Your task to perform on an android device: uninstall "The Home Depot" Image 0: 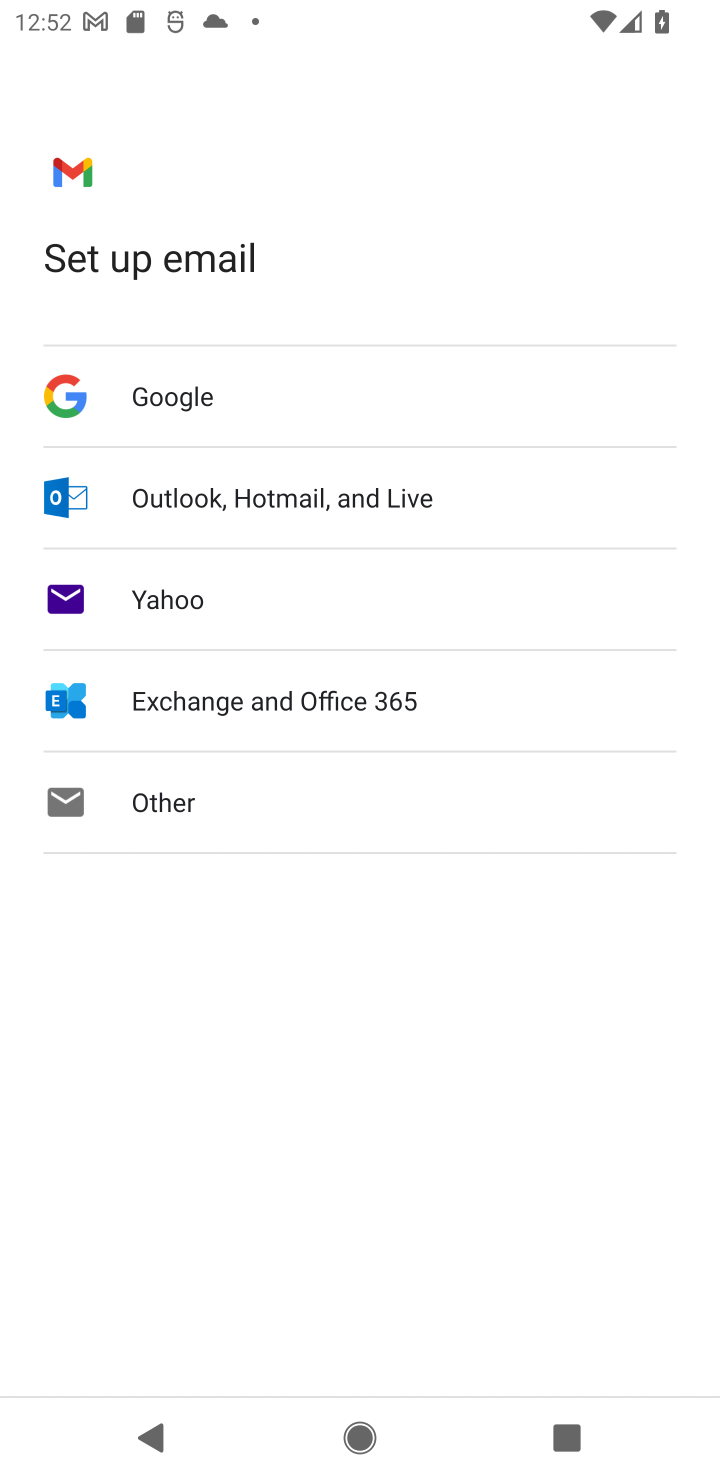
Step 0: press home button
Your task to perform on an android device: uninstall "The Home Depot" Image 1: 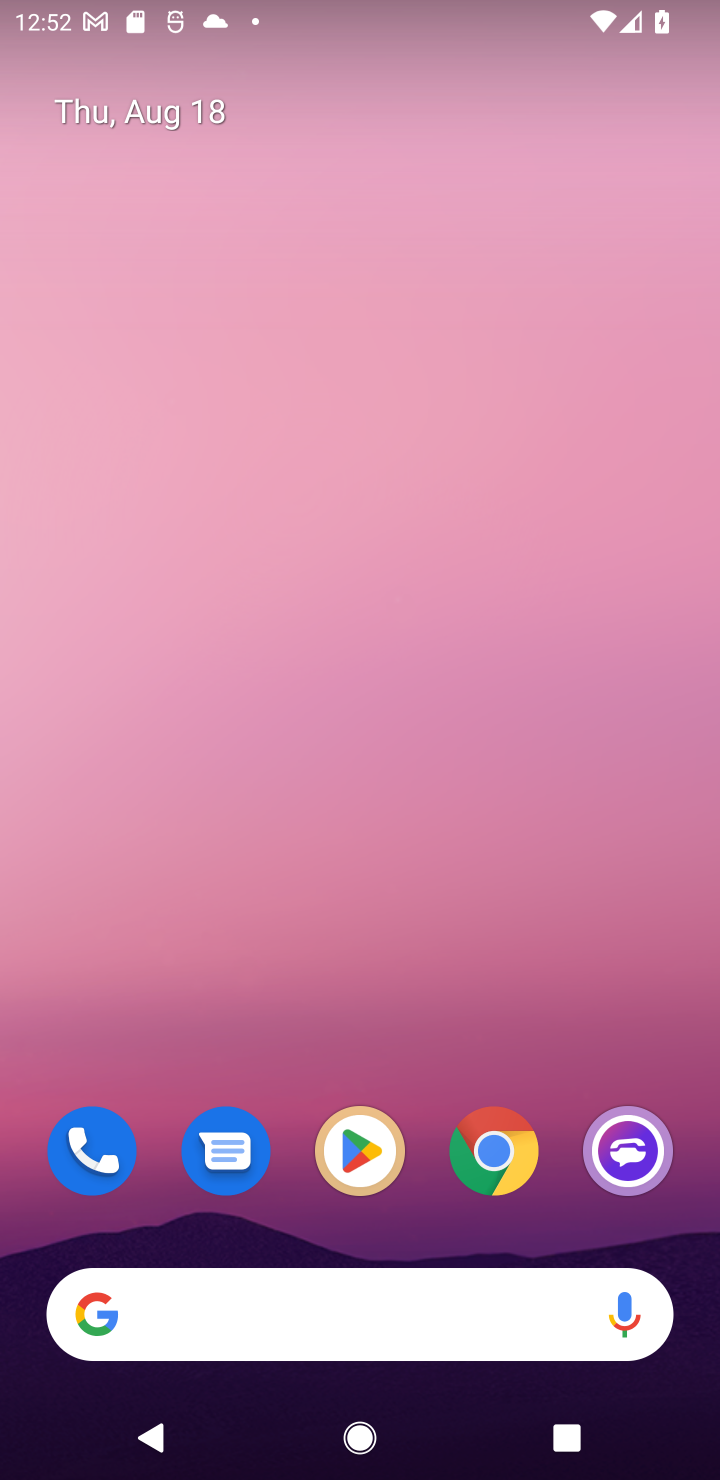
Step 1: click (371, 1143)
Your task to perform on an android device: uninstall "The Home Depot" Image 2: 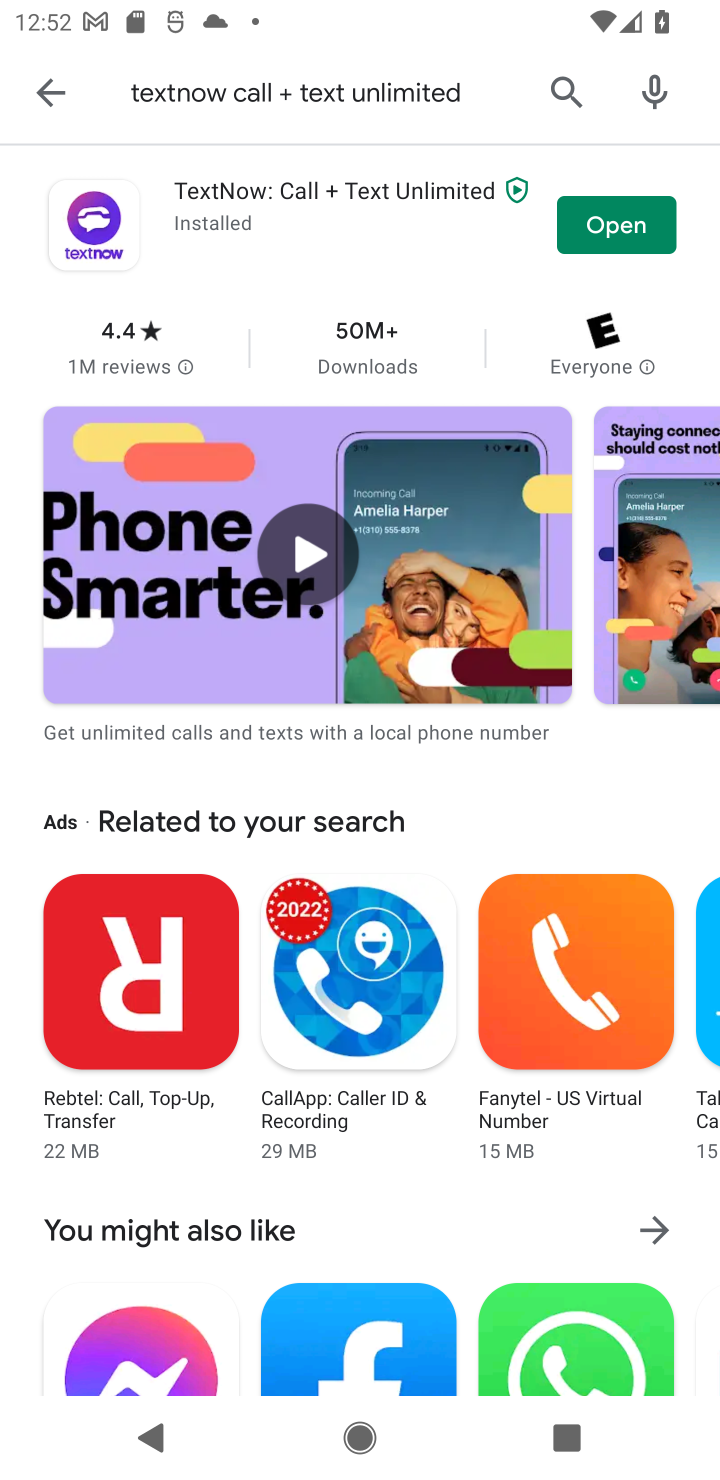
Step 2: click (42, 83)
Your task to perform on an android device: uninstall "The Home Depot" Image 3: 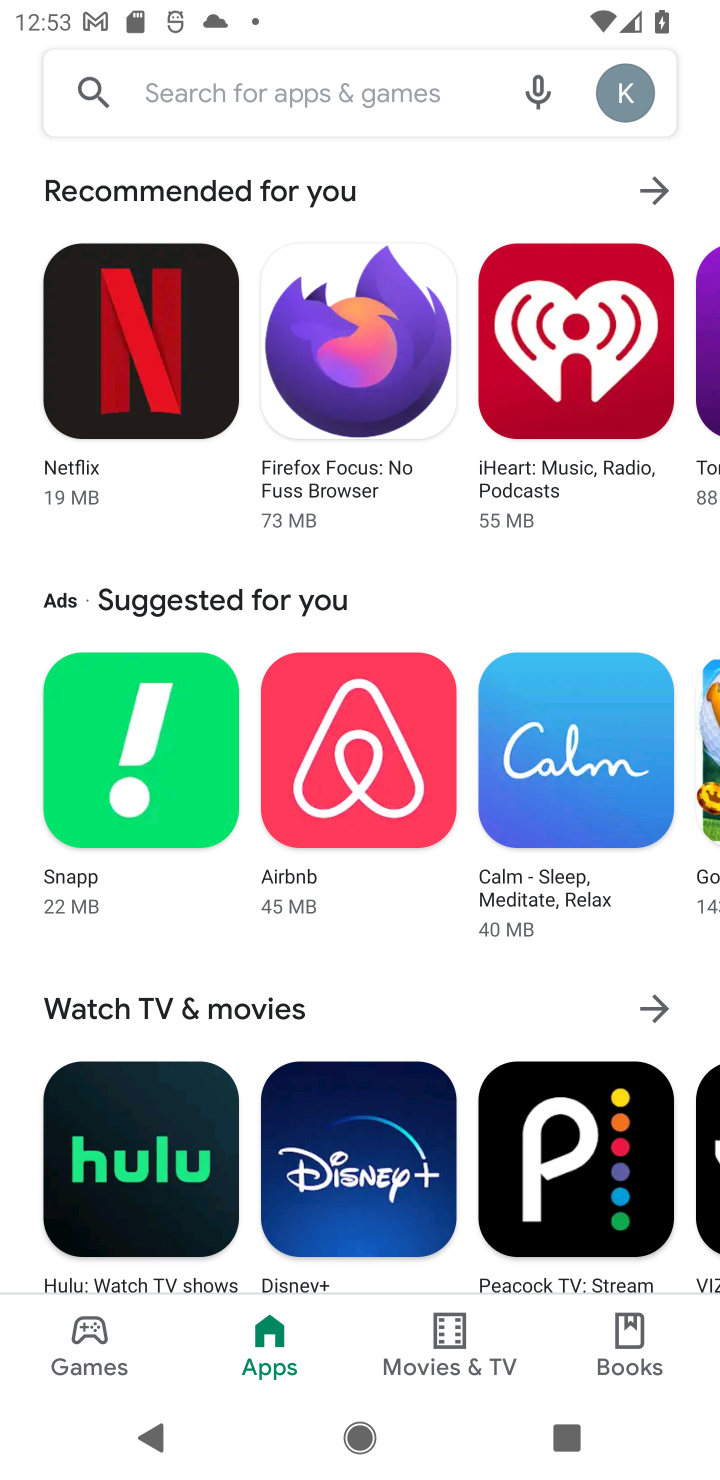
Step 3: click (355, 89)
Your task to perform on an android device: uninstall "The Home Depot" Image 4: 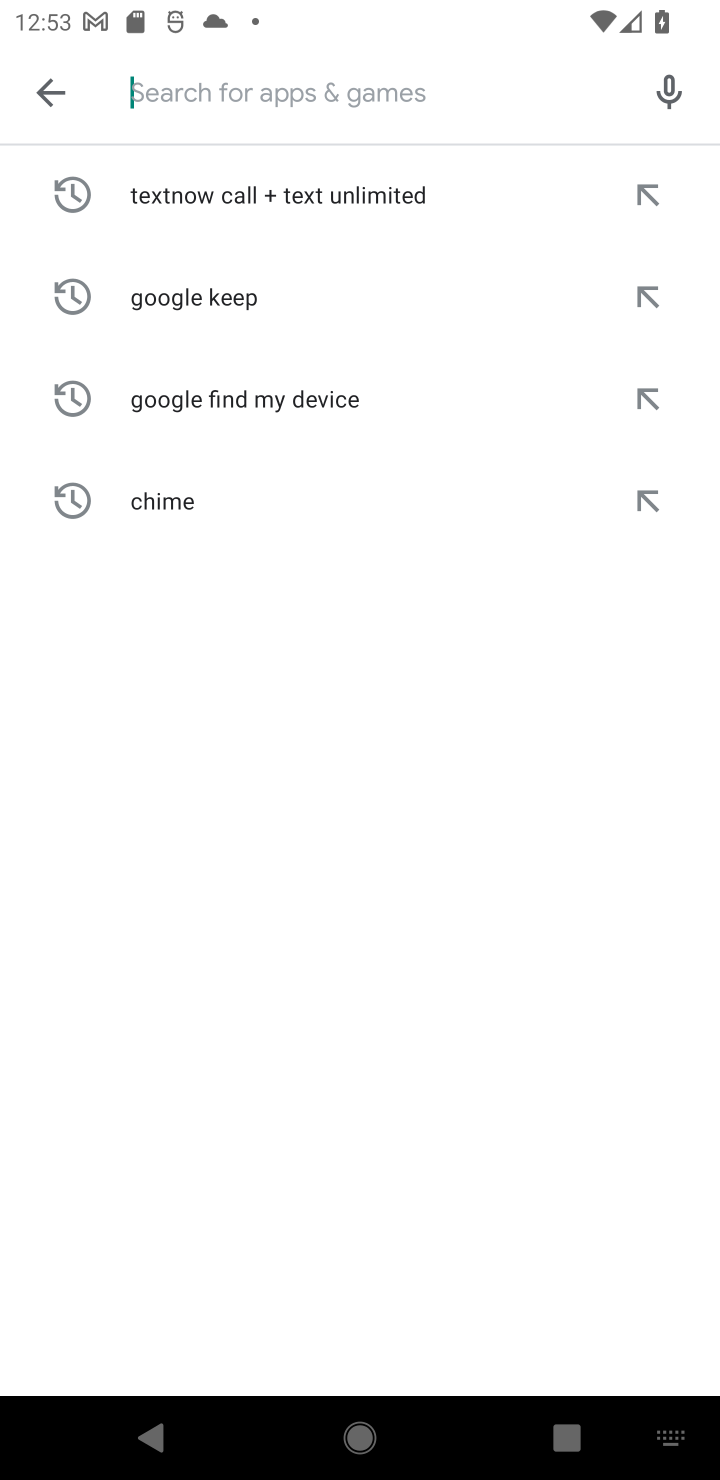
Step 4: type "The Home Depot"
Your task to perform on an android device: uninstall "The Home Depot" Image 5: 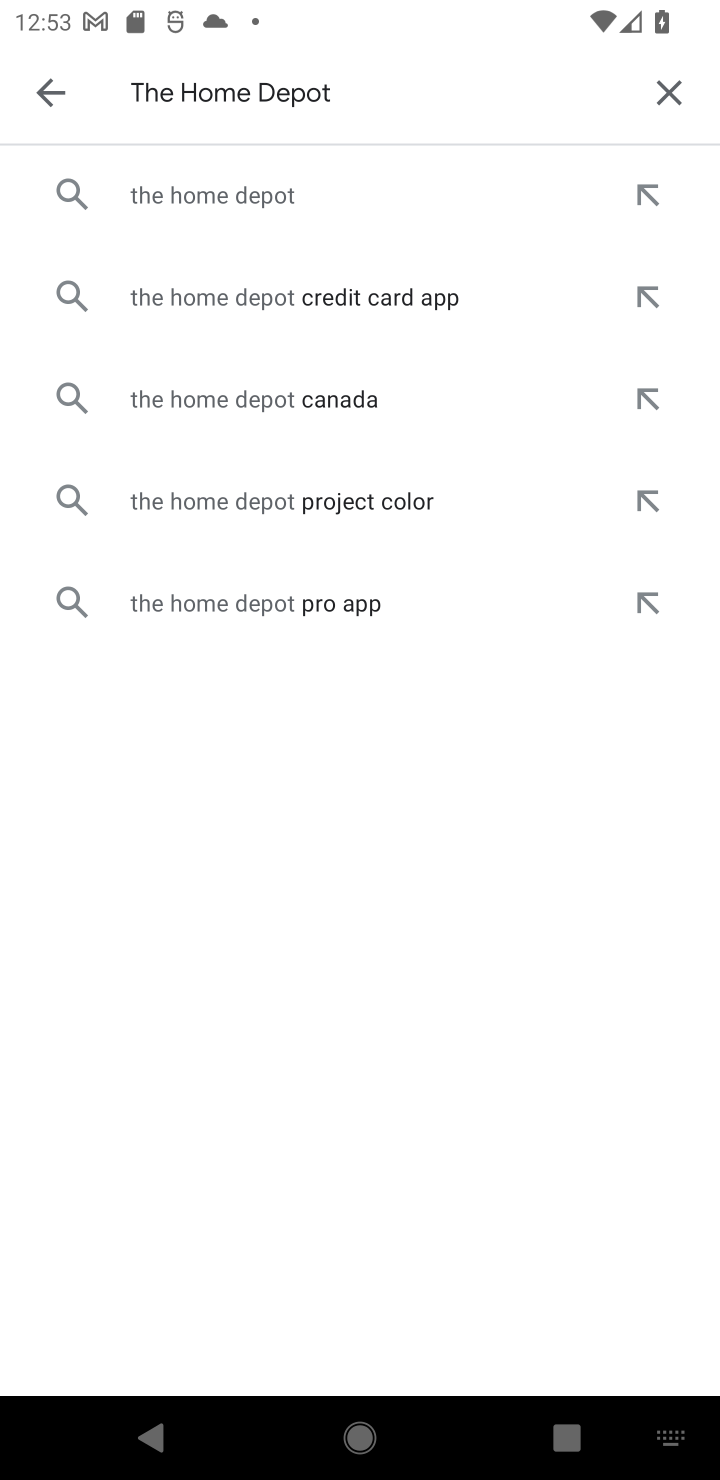
Step 5: click (212, 197)
Your task to perform on an android device: uninstall "The Home Depot" Image 6: 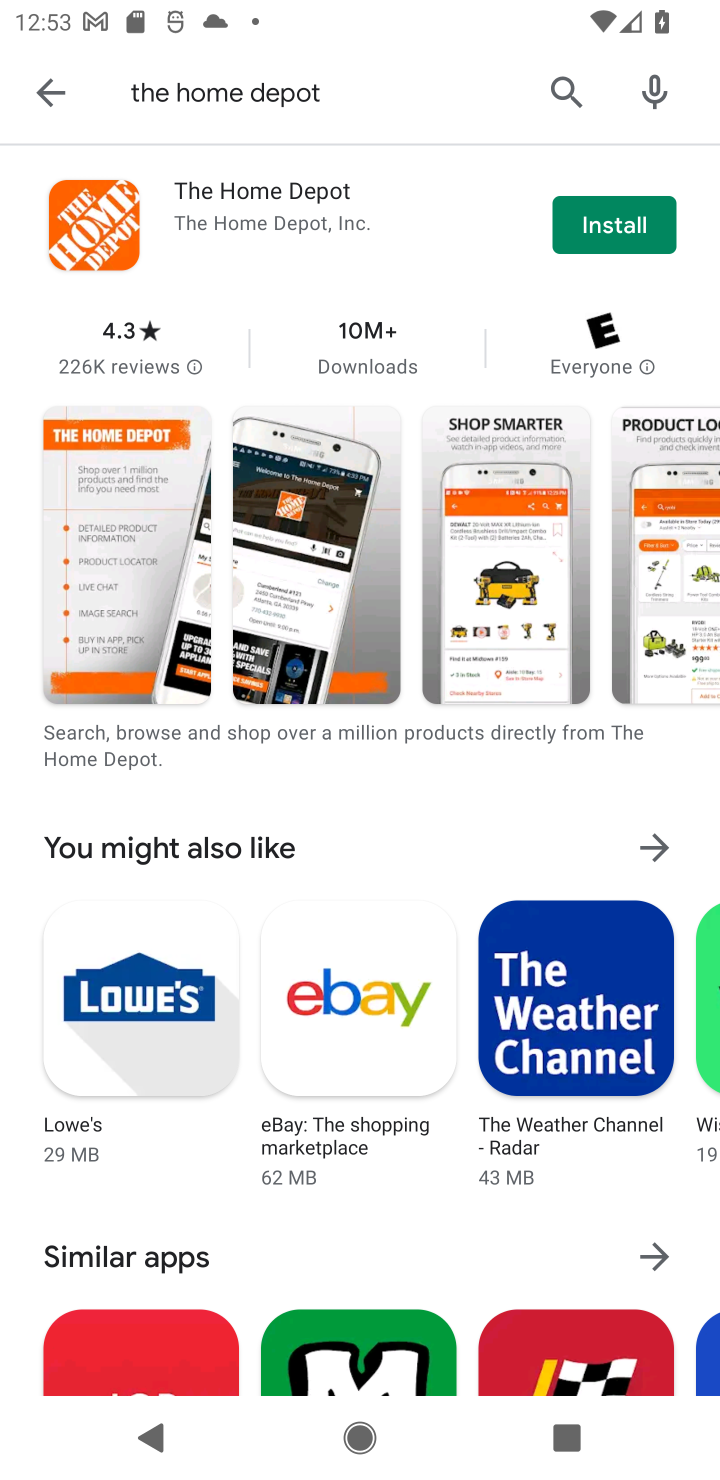
Step 6: click (612, 225)
Your task to perform on an android device: uninstall "The Home Depot" Image 7: 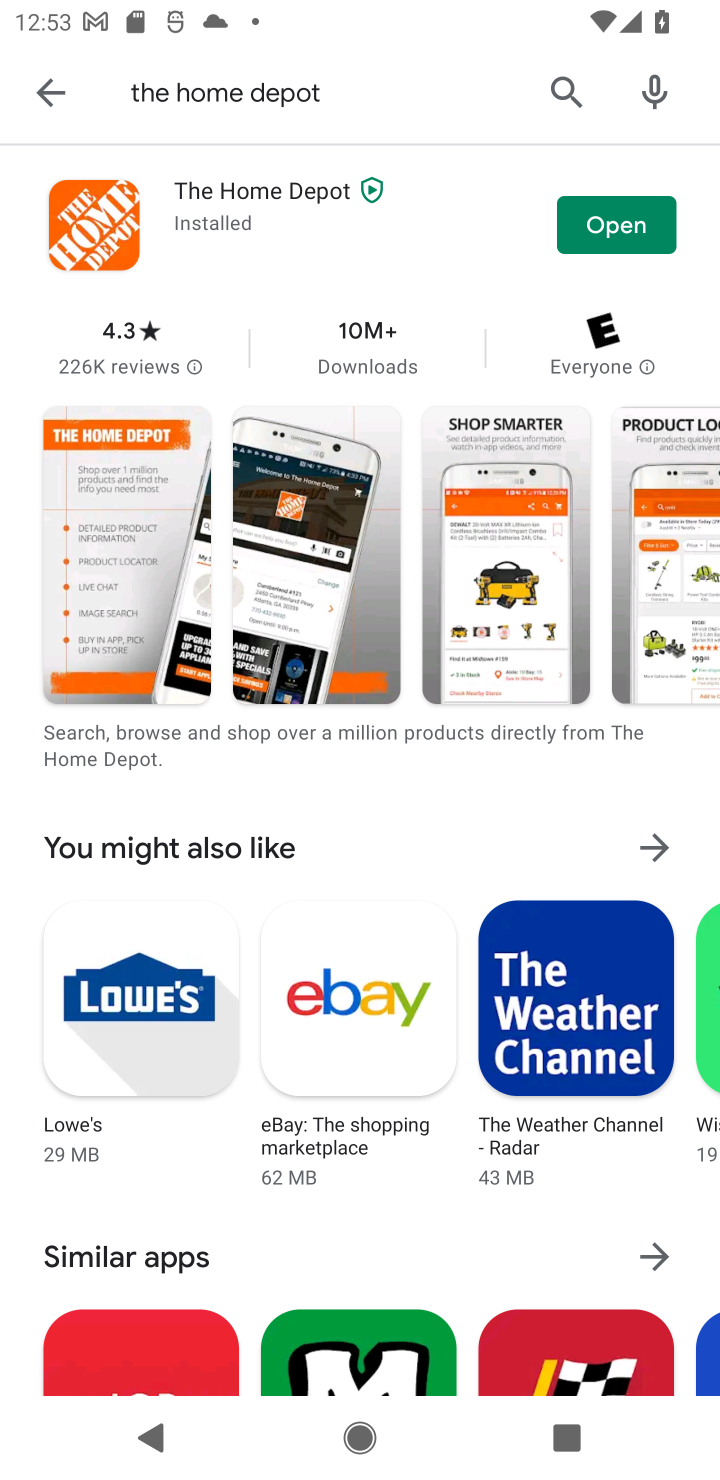
Step 7: click (612, 225)
Your task to perform on an android device: uninstall "The Home Depot" Image 8: 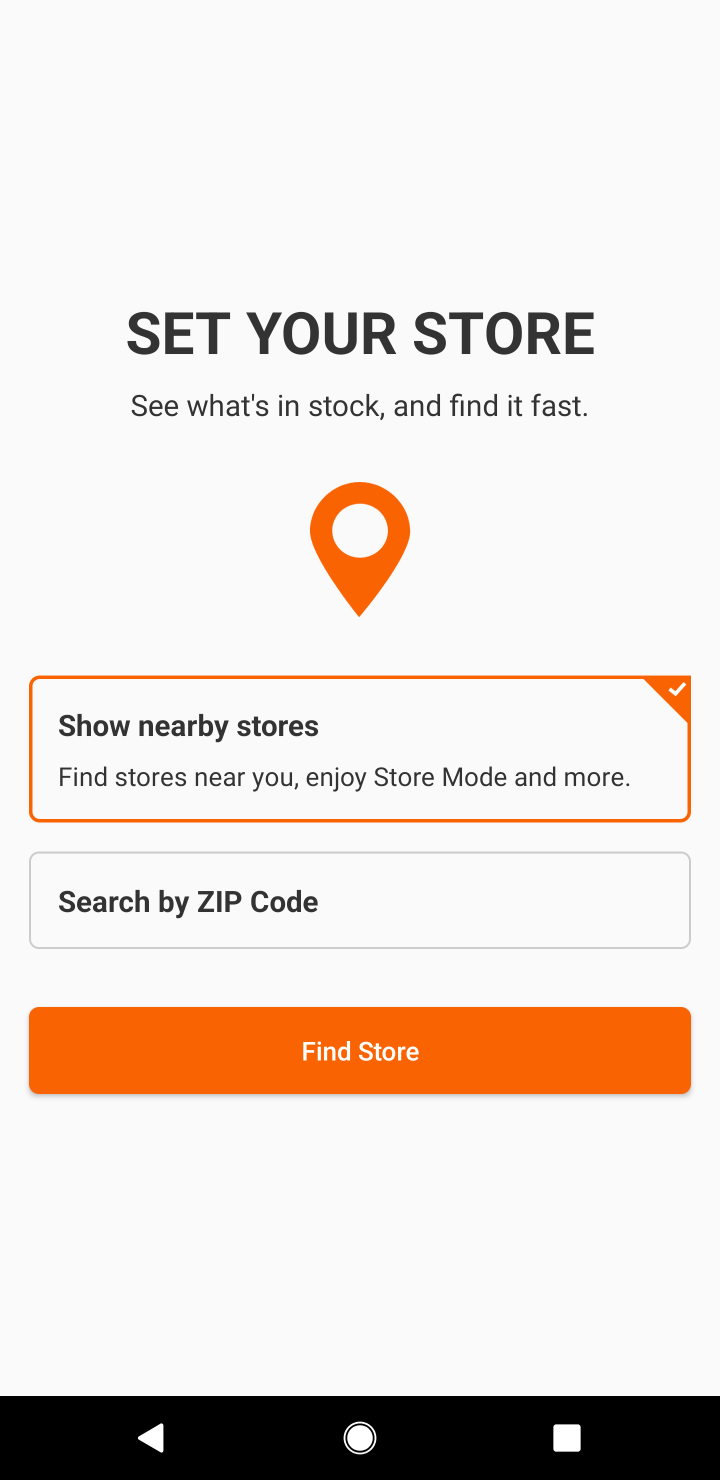
Step 8: press back button
Your task to perform on an android device: uninstall "The Home Depot" Image 9: 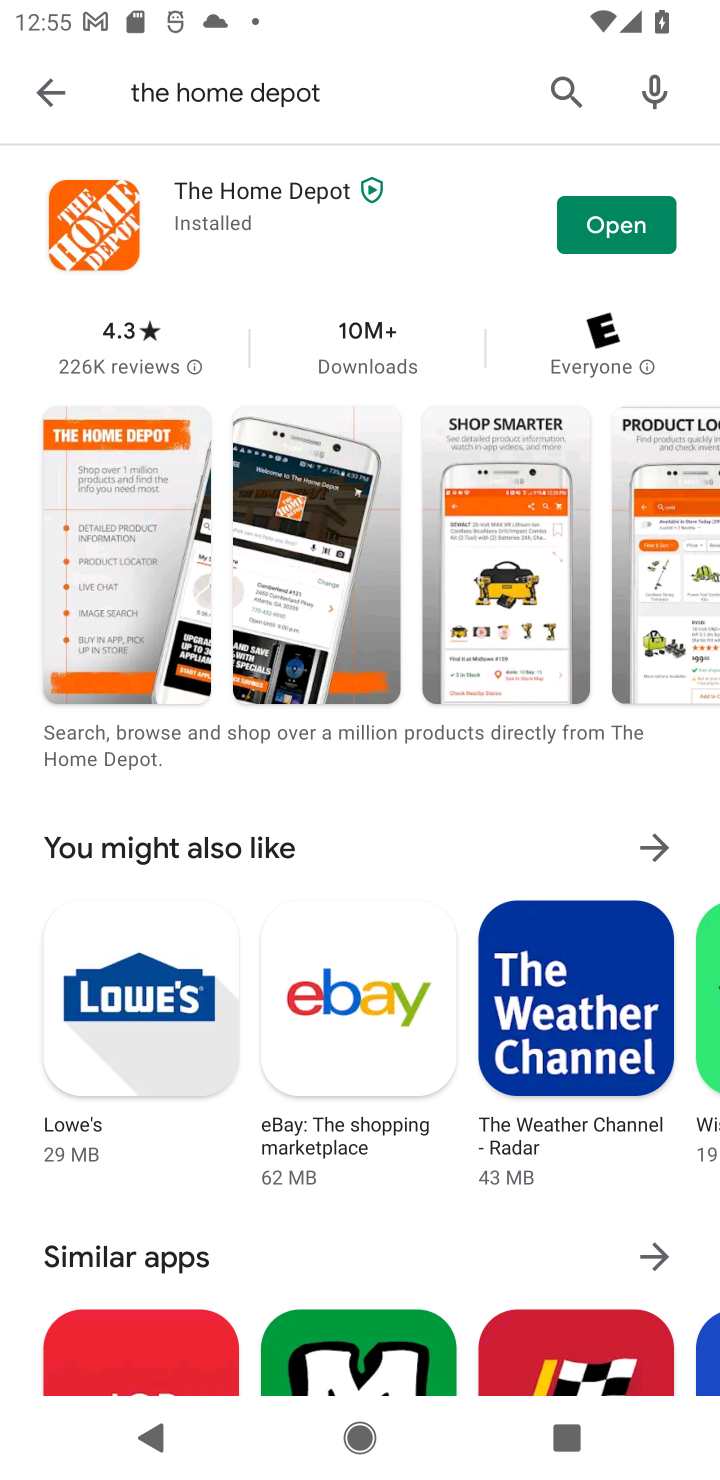
Step 9: click (248, 191)
Your task to perform on an android device: uninstall "The Home Depot" Image 10: 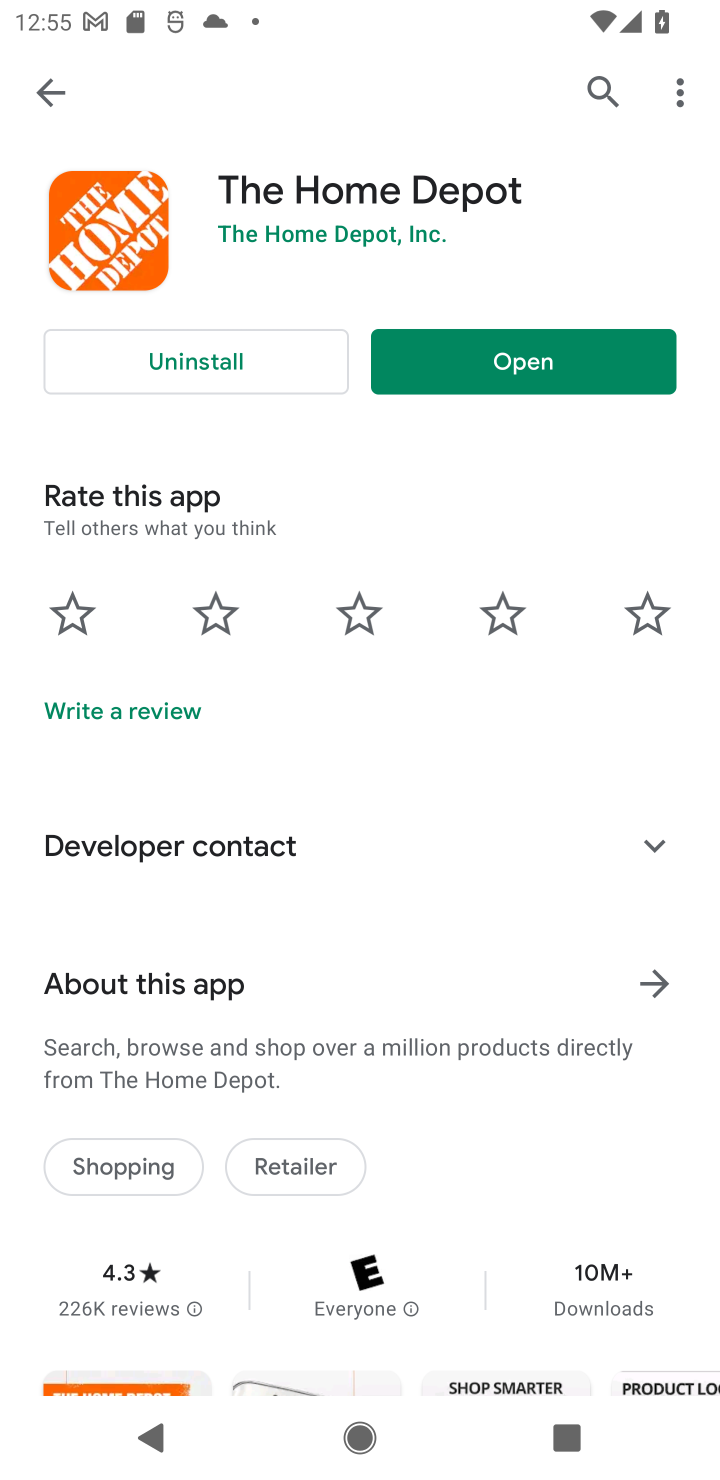
Step 10: click (215, 344)
Your task to perform on an android device: uninstall "The Home Depot" Image 11: 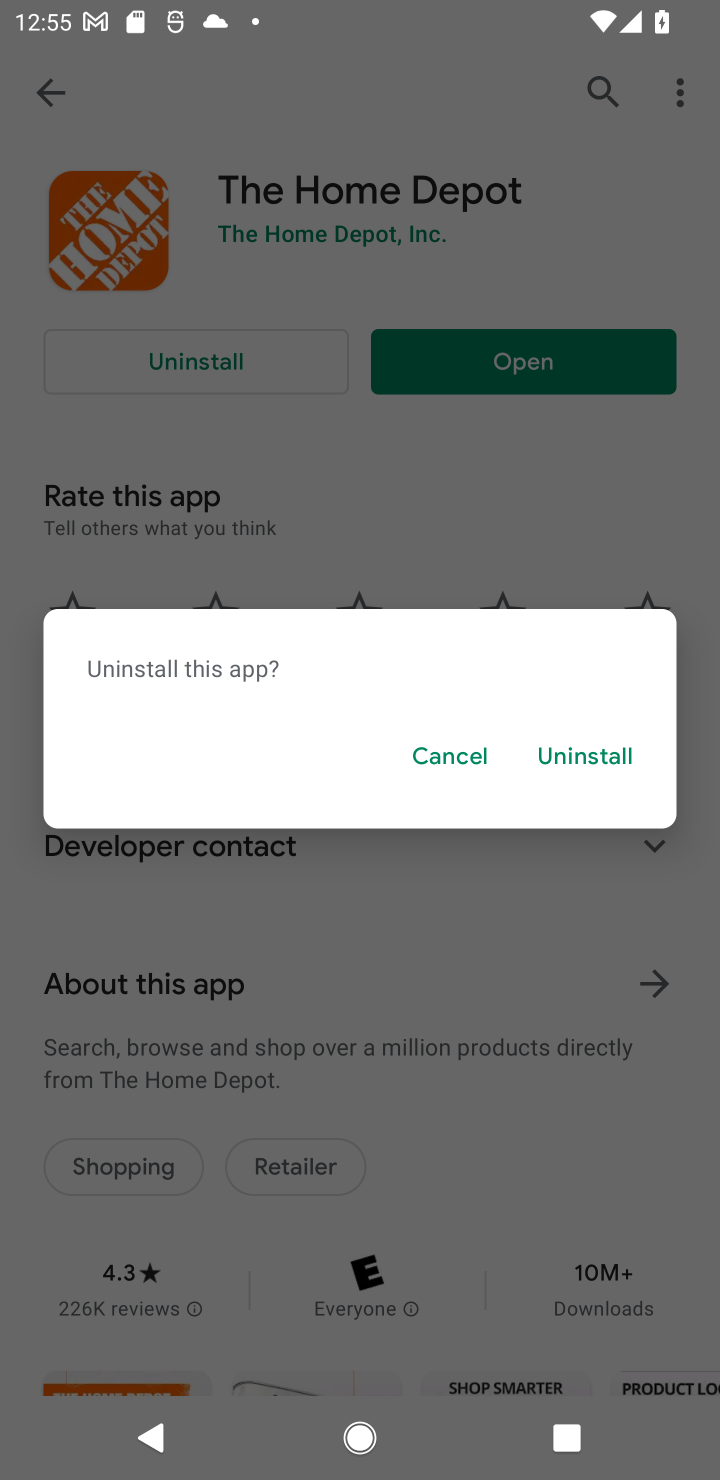
Step 11: click (591, 742)
Your task to perform on an android device: uninstall "The Home Depot" Image 12: 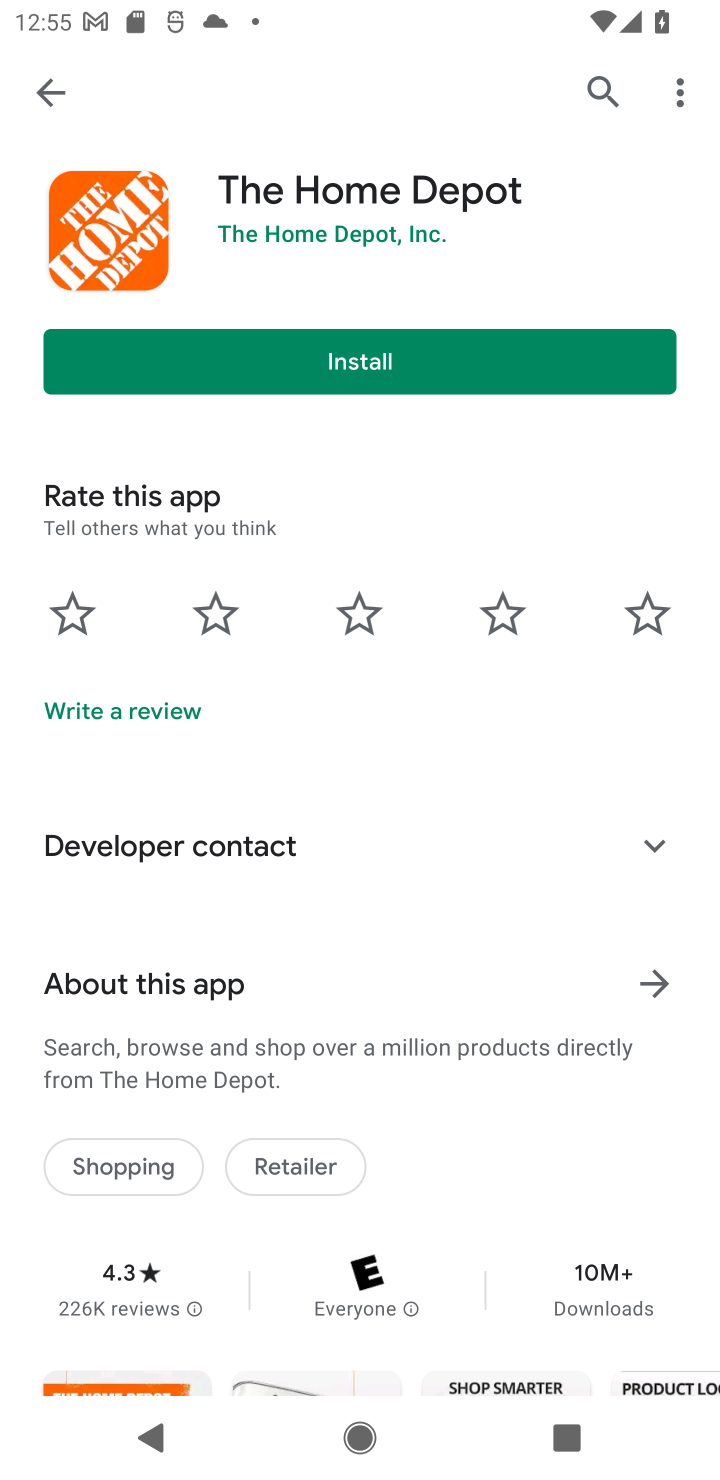
Step 12: task complete